Your task to perform on an android device: move a message to another label in the gmail app Image 0: 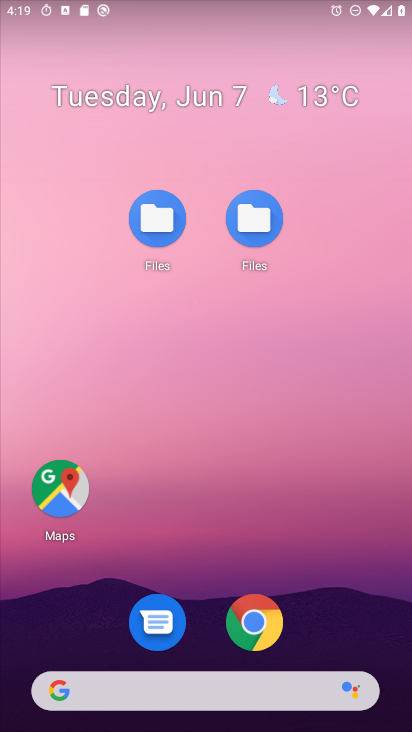
Step 0: drag from (369, 608) to (361, 123)
Your task to perform on an android device: move a message to another label in the gmail app Image 1: 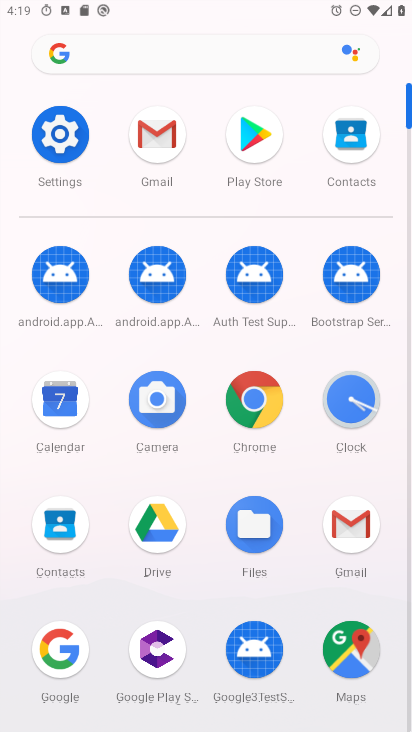
Step 1: click (165, 120)
Your task to perform on an android device: move a message to another label in the gmail app Image 2: 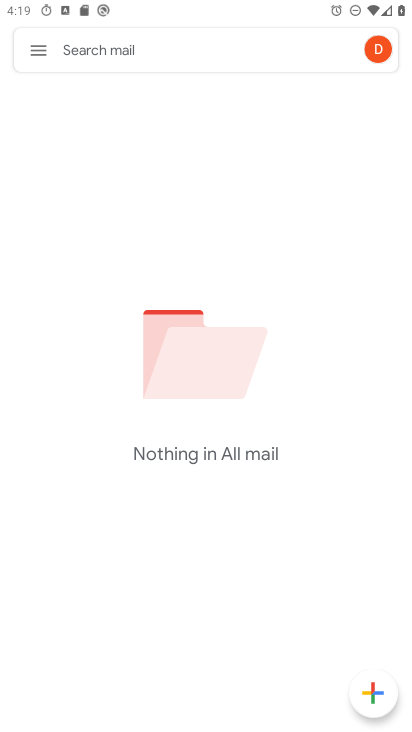
Step 2: click (36, 47)
Your task to perform on an android device: move a message to another label in the gmail app Image 3: 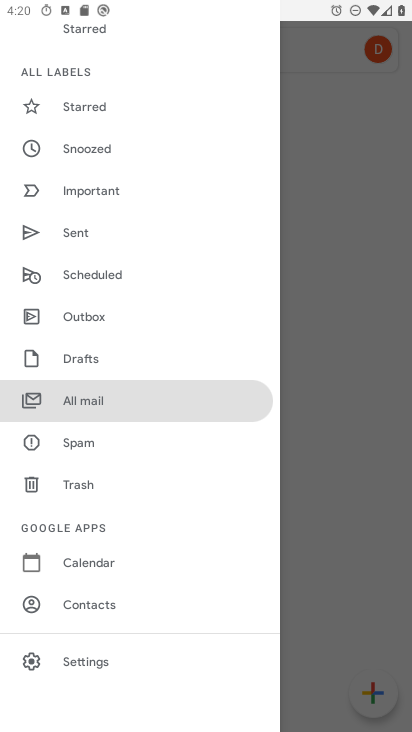
Step 3: task complete